Your task to perform on an android device: Play the new Beyonce video on YouTube Image 0: 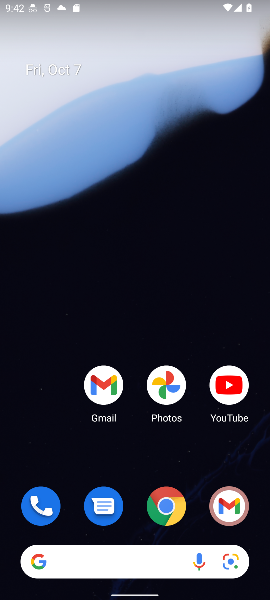
Step 0: click (227, 378)
Your task to perform on an android device: Play the new Beyonce video on YouTube Image 1: 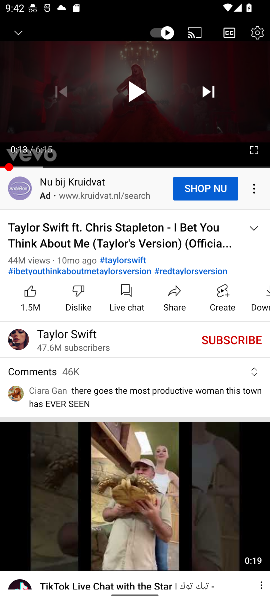
Step 1: press back button
Your task to perform on an android device: Play the new Beyonce video on YouTube Image 2: 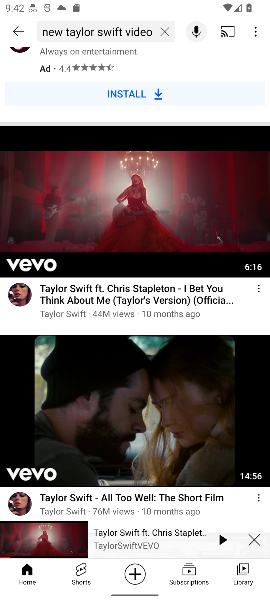
Step 2: click (28, 567)
Your task to perform on an android device: Play the new Beyonce video on YouTube Image 3: 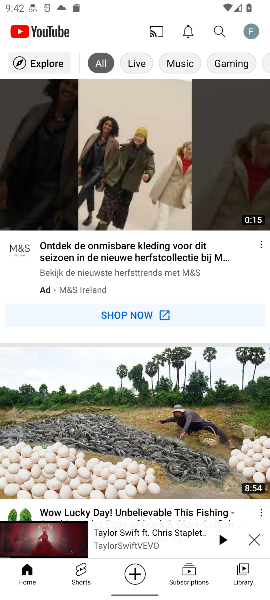
Step 3: click (214, 28)
Your task to perform on an android device: Play the new Beyonce video on YouTube Image 4: 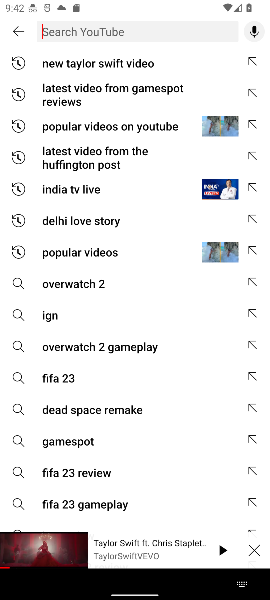
Step 4: type "new Beyonce video"
Your task to perform on an android device: Play the new Beyonce video on YouTube Image 5: 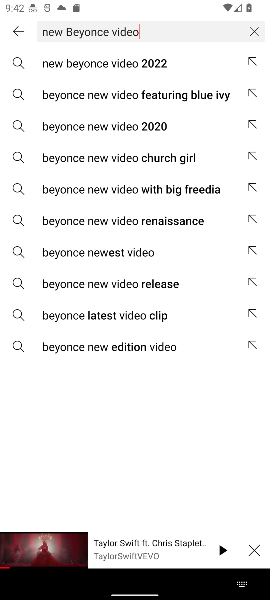
Step 5: click (145, 64)
Your task to perform on an android device: Play the new Beyonce video on YouTube Image 6: 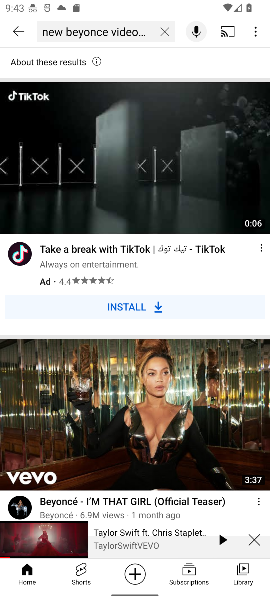
Step 6: click (253, 540)
Your task to perform on an android device: Play the new Beyonce video on YouTube Image 7: 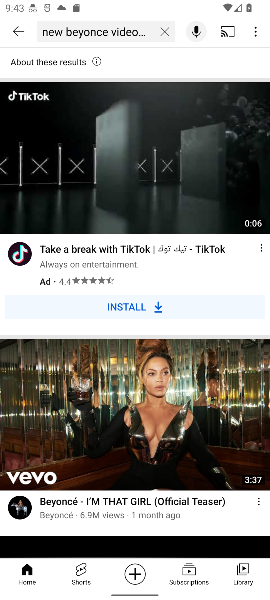
Step 7: drag from (128, 425) to (195, 149)
Your task to perform on an android device: Play the new Beyonce video on YouTube Image 8: 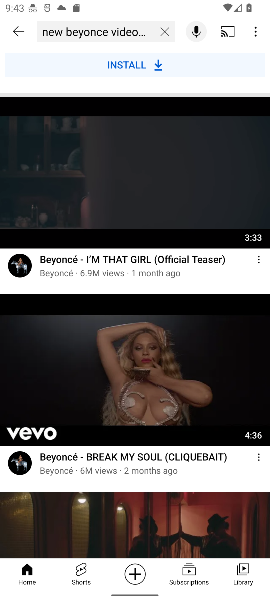
Step 8: click (152, 150)
Your task to perform on an android device: Play the new Beyonce video on YouTube Image 9: 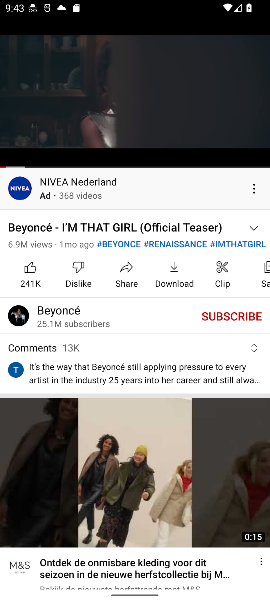
Step 9: click (110, 79)
Your task to perform on an android device: Play the new Beyonce video on YouTube Image 10: 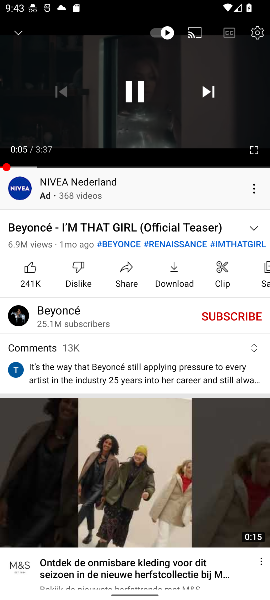
Step 10: click (115, 81)
Your task to perform on an android device: Play the new Beyonce video on YouTube Image 11: 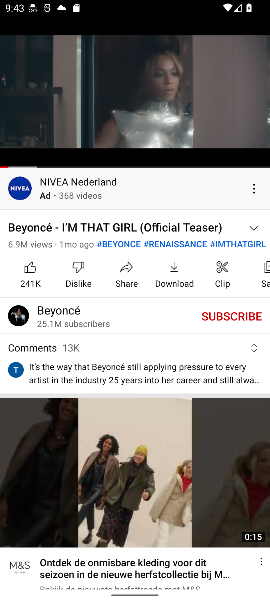
Step 11: click (126, 87)
Your task to perform on an android device: Play the new Beyonce video on YouTube Image 12: 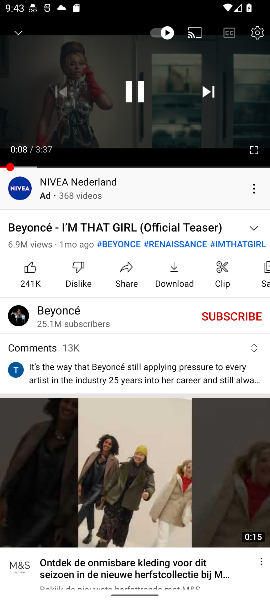
Step 12: click (139, 86)
Your task to perform on an android device: Play the new Beyonce video on YouTube Image 13: 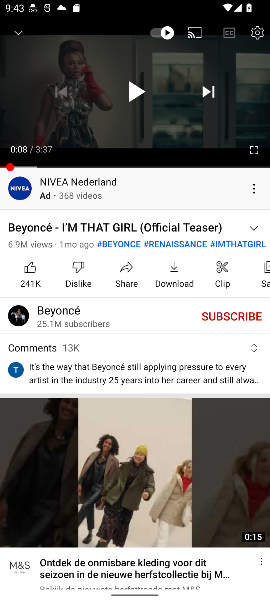
Step 13: task complete